Your task to perform on an android device: Open Google Chrome and click the shortcut for Amazon.com Image 0: 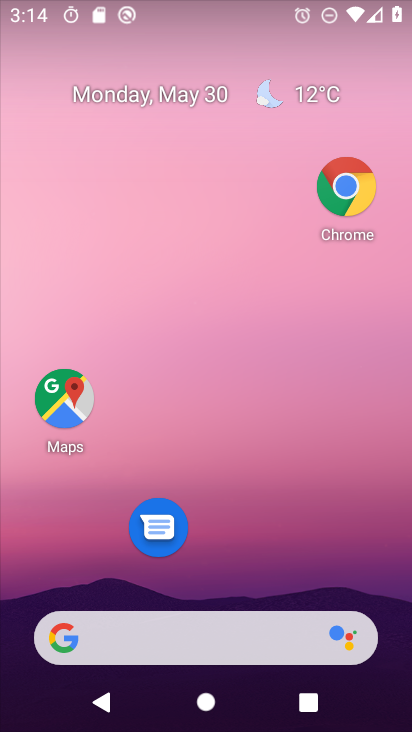
Step 0: drag from (203, 590) to (395, 35)
Your task to perform on an android device: Open Google Chrome and click the shortcut for Amazon.com Image 1: 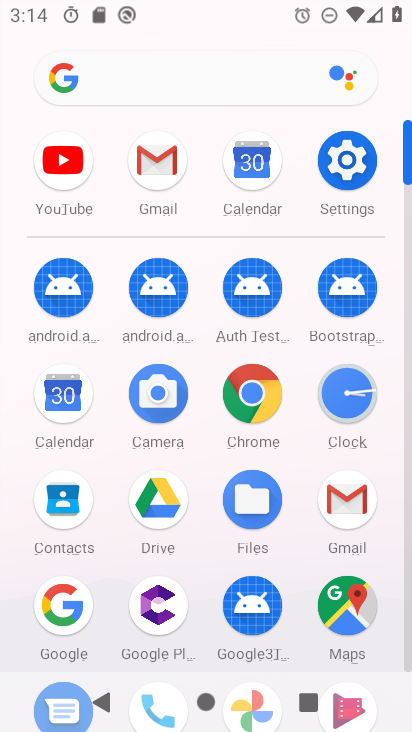
Step 1: click (254, 384)
Your task to perform on an android device: Open Google Chrome and click the shortcut for Amazon.com Image 2: 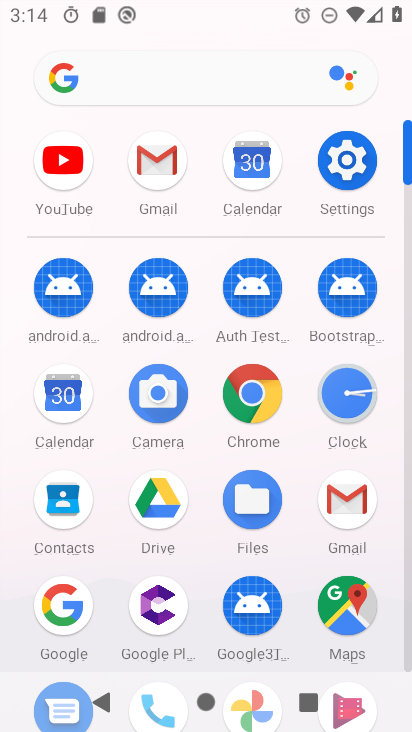
Step 2: click (254, 384)
Your task to perform on an android device: Open Google Chrome and click the shortcut for Amazon.com Image 3: 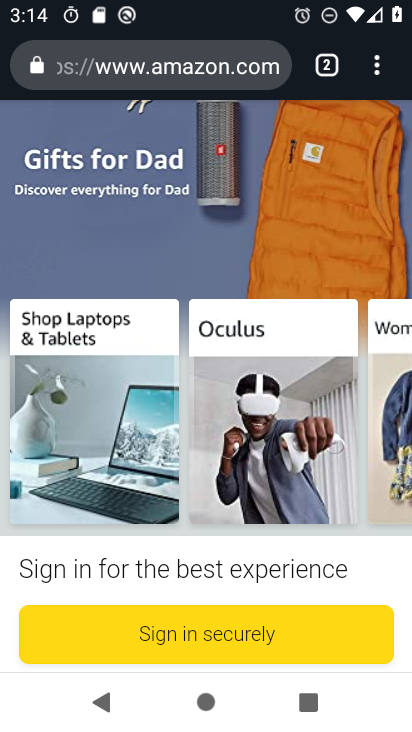
Step 3: click (325, 66)
Your task to perform on an android device: Open Google Chrome and click the shortcut for Amazon.com Image 4: 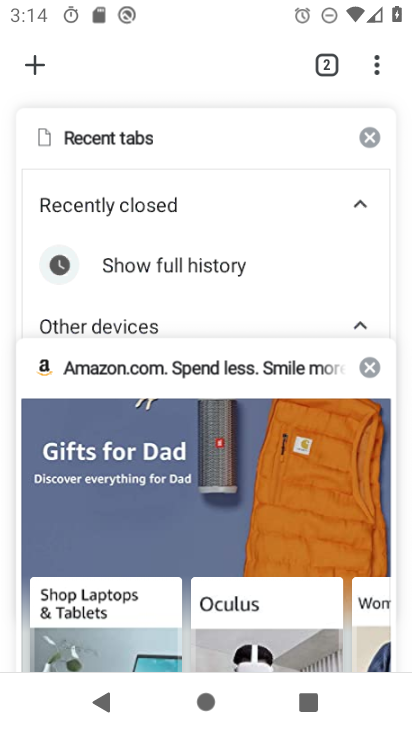
Step 4: click (20, 64)
Your task to perform on an android device: Open Google Chrome and click the shortcut for Amazon.com Image 5: 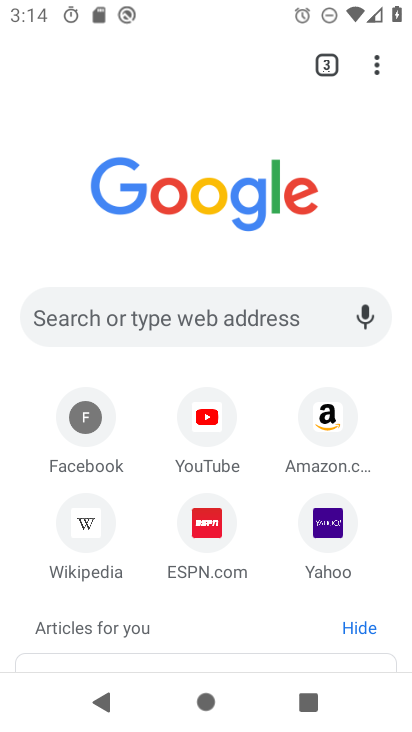
Step 5: click (309, 428)
Your task to perform on an android device: Open Google Chrome and click the shortcut for Amazon.com Image 6: 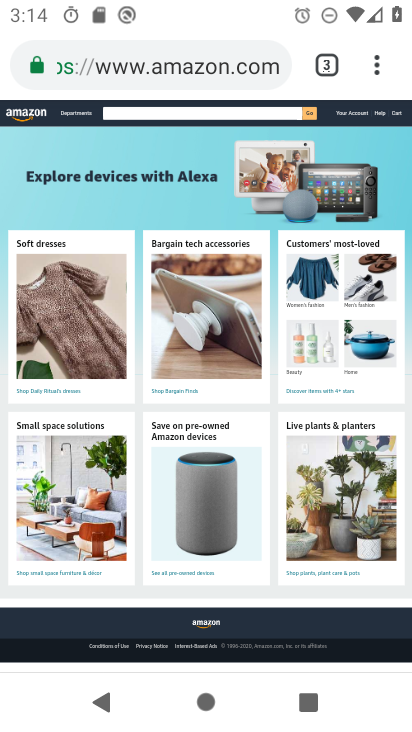
Step 6: task complete